Your task to perform on an android device: Go to eBay Image 0: 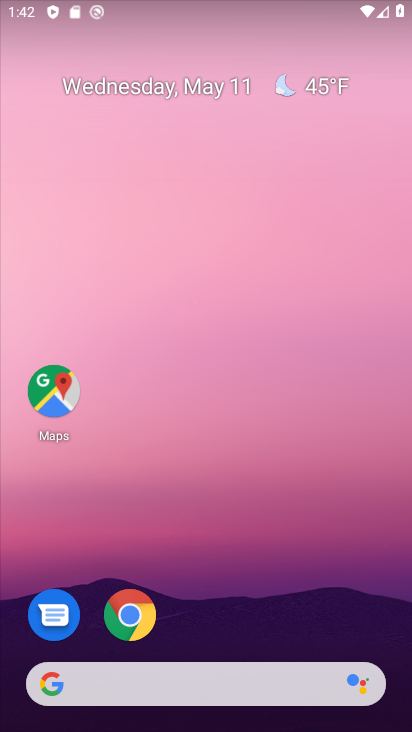
Step 0: click (117, 599)
Your task to perform on an android device: Go to eBay Image 1: 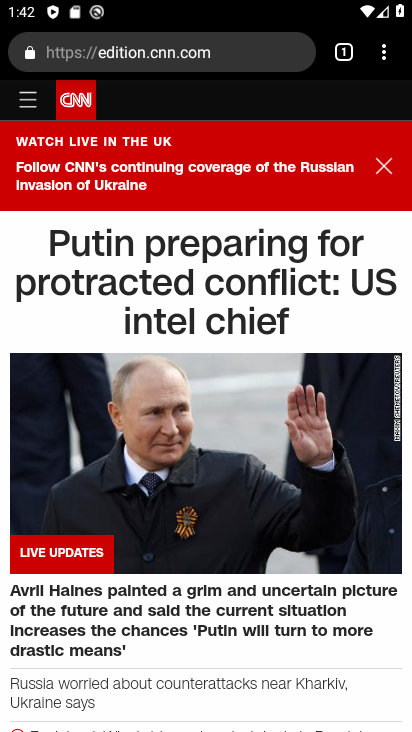
Step 1: click (117, 599)
Your task to perform on an android device: Go to eBay Image 2: 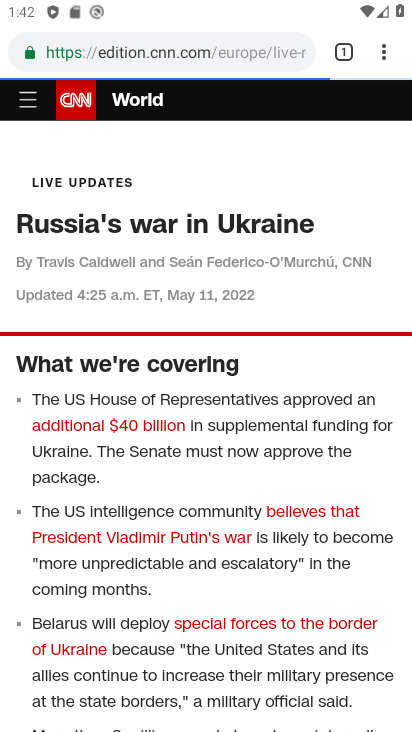
Step 2: click (230, 45)
Your task to perform on an android device: Go to eBay Image 3: 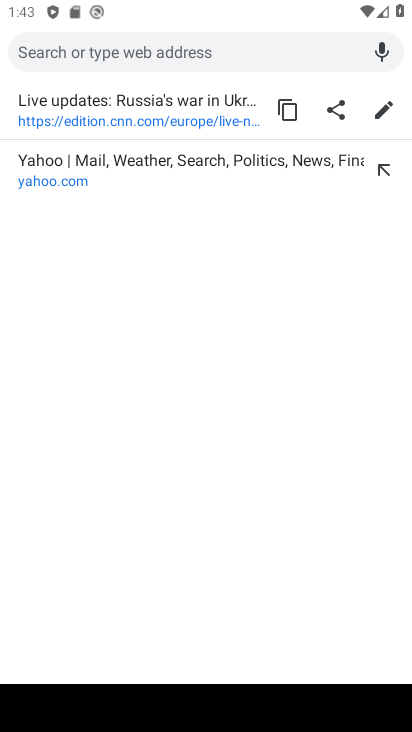
Step 3: type "ebay"
Your task to perform on an android device: Go to eBay Image 4: 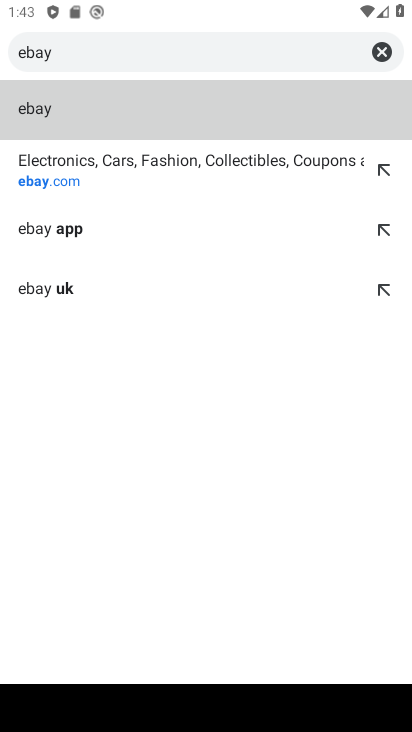
Step 4: click (99, 158)
Your task to perform on an android device: Go to eBay Image 5: 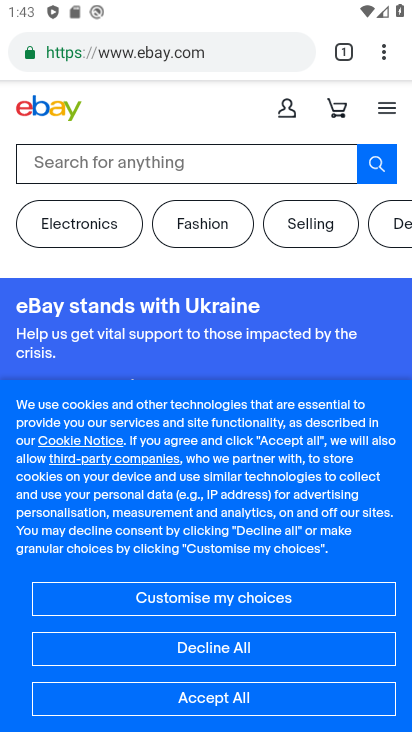
Step 5: task complete